Your task to perform on an android device: Open accessibility settings Image 0: 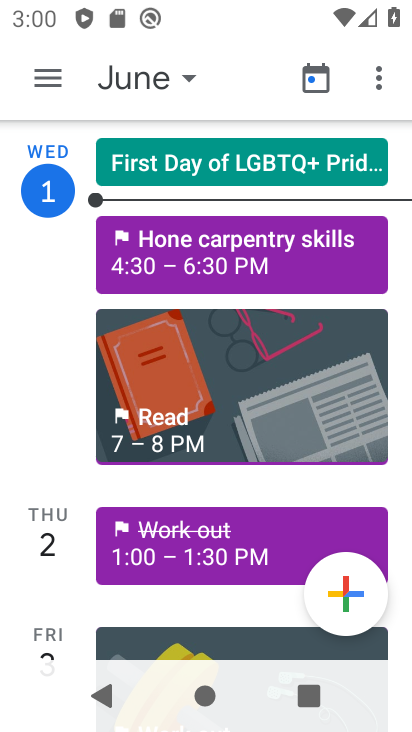
Step 0: press home button
Your task to perform on an android device: Open accessibility settings Image 1: 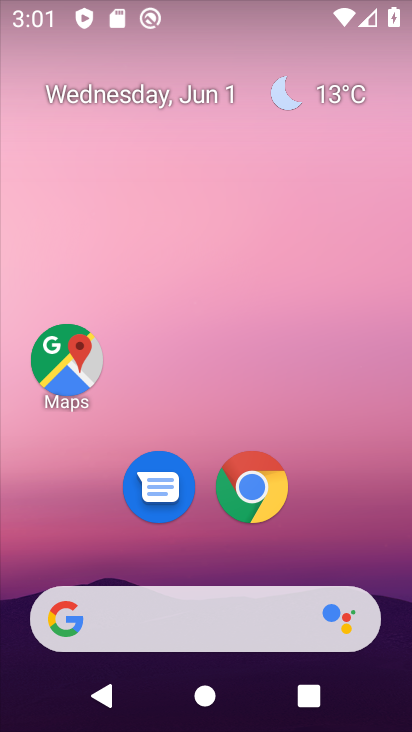
Step 1: click (250, 165)
Your task to perform on an android device: Open accessibility settings Image 2: 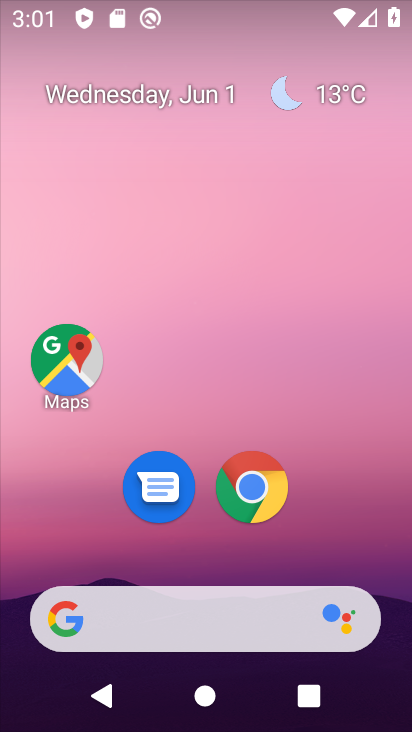
Step 2: drag from (359, 518) to (261, 116)
Your task to perform on an android device: Open accessibility settings Image 3: 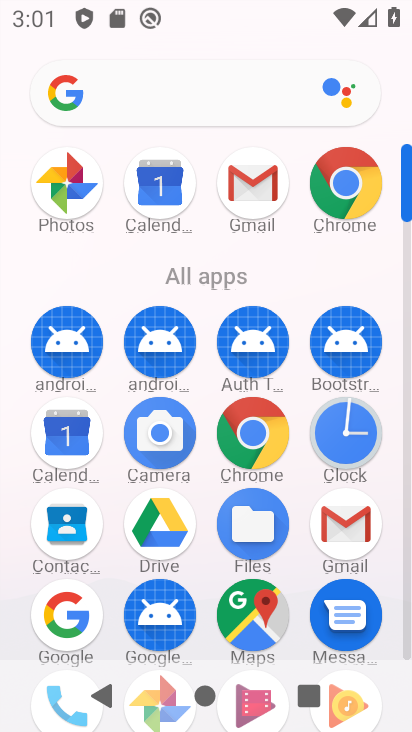
Step 3: click (401, 648)
Your task to perform on an android device: Open accessibility settings Image 4: 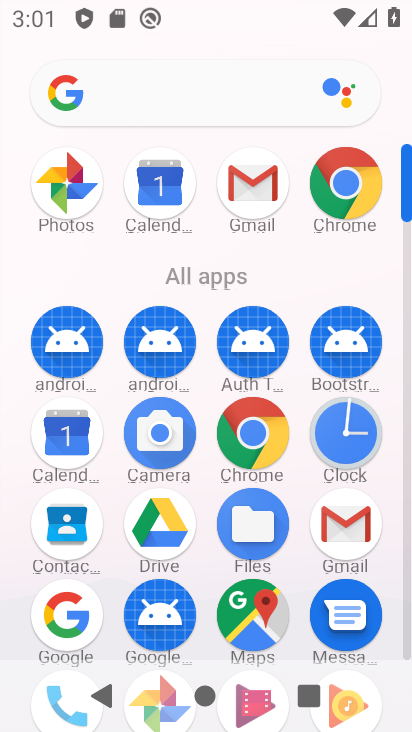
Step 4: click (407, 651)
Your task to perform on an android device: Open accessibility settings Image 5: 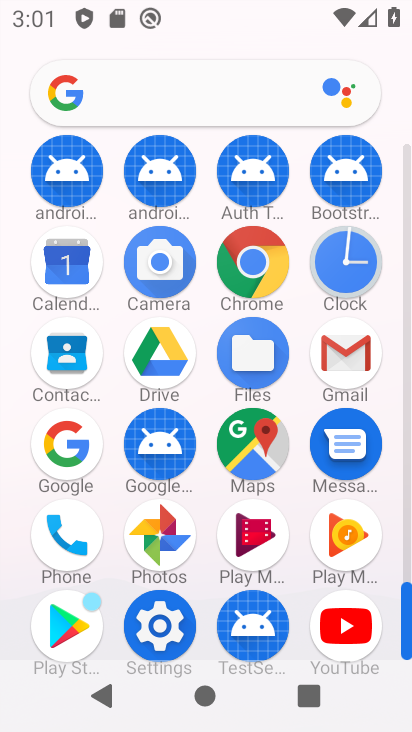
Step 5: click (140, 621)
Your task to perform on an android device: Open accessibility settings Image 6: 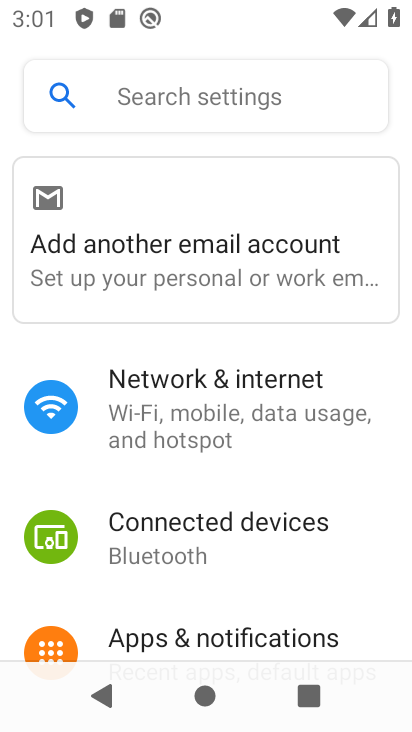
Step 6: drag from (254, 619) to (184, 231)
Your task to perform on an android device: Open accessibility settings Image 7: 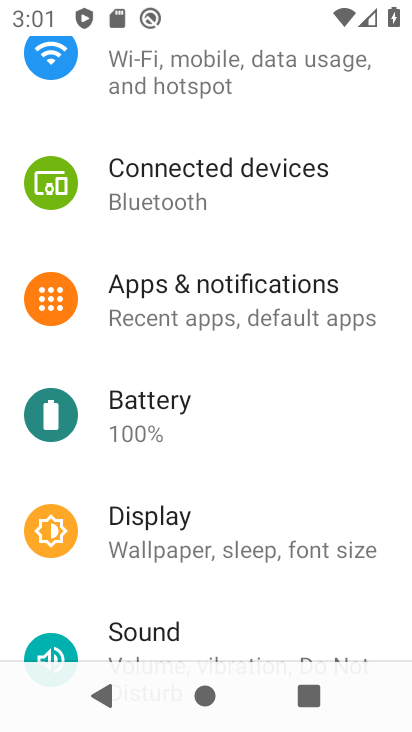
Step 7: drag from (287, 606) to (260, 317)
Your task to perform on an android device: Open accessibility settings Image 8: 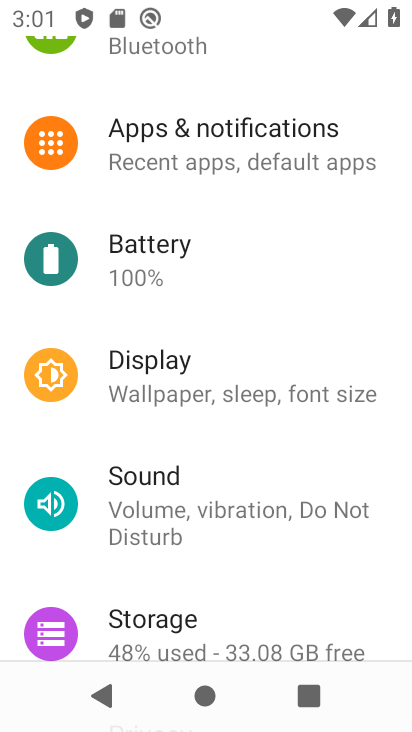
Step 8: drag from (288, 580) to (249, 209)
Your task to perform on an android device: Open accessibility settings Image 9: 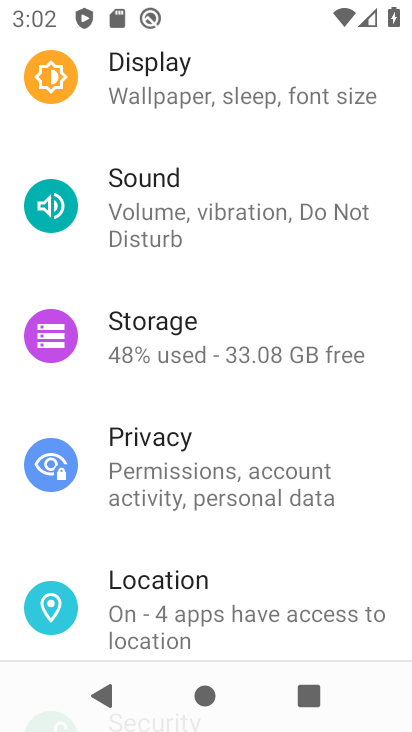
Step 9: drag from (326, 592) to (258, 195)
Your task to perform on an android device: Open accessibility settings Image 10: 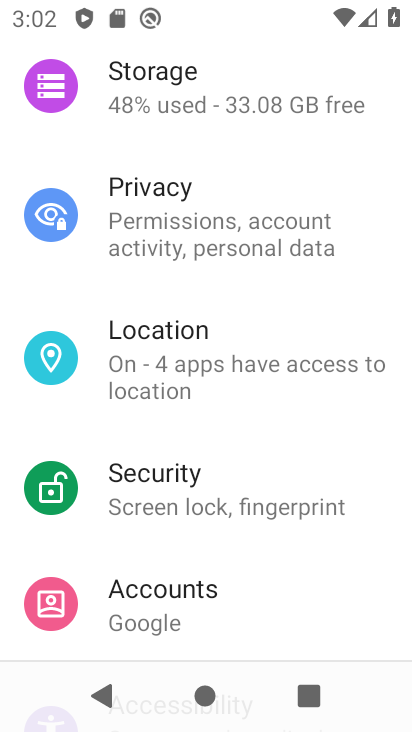
Step 10: drag from (324, 546) to (260, 120)
Your task to perform on an android device: Open accessibility settings Image 11: 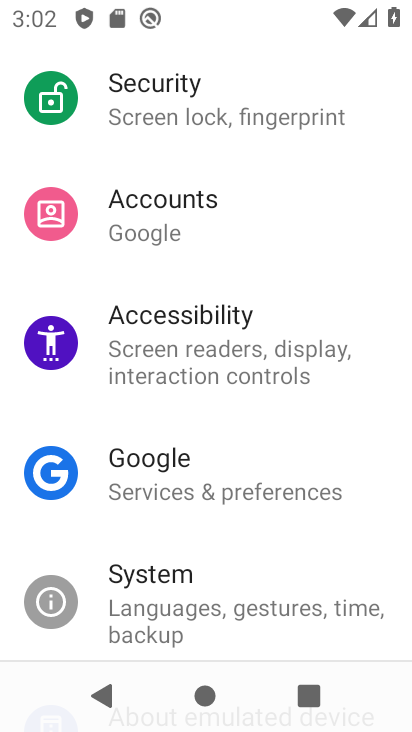
Step 11: click (293, 318)
Your task to perform on an android device: Open accessibility settings Image 12: 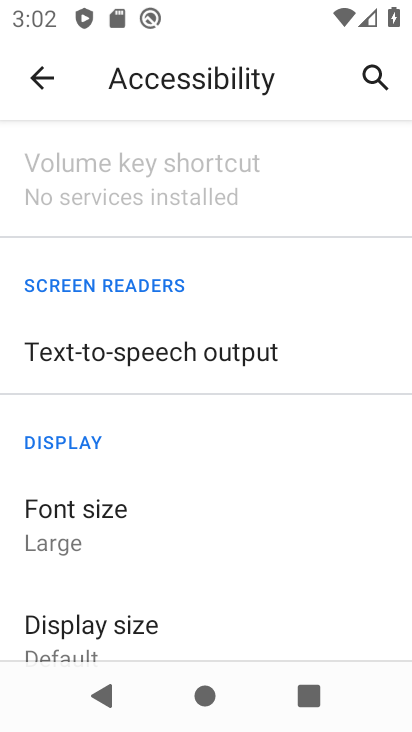
Step 12: task complete